Your task to perform on an android device: turn on the 24-hour format for clock Image 0: 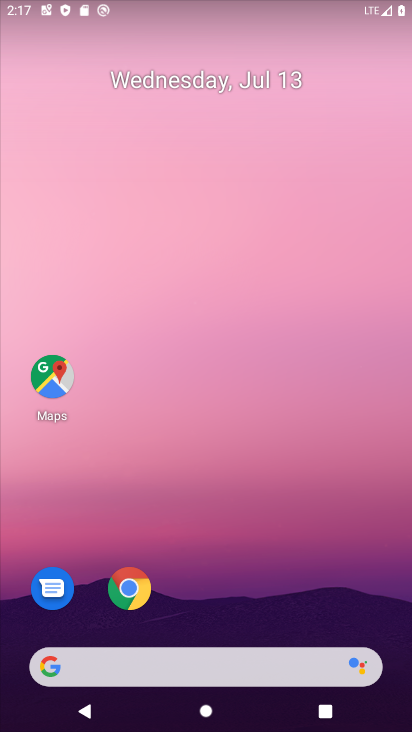
Step 0: drag from (409, 640) to (395, 189)
Your task to perform on an android device: turn on the 24-hour format for clock Image 1: 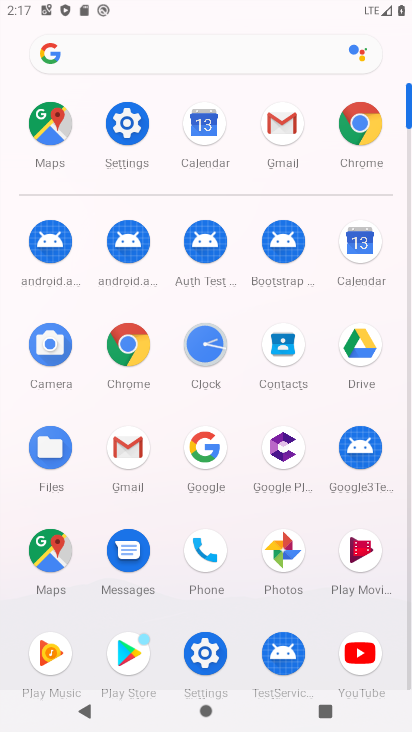
Step 1: click (207, 357)
Your task to perform on an android device: turn on the 24-hour format for clock Image 2: 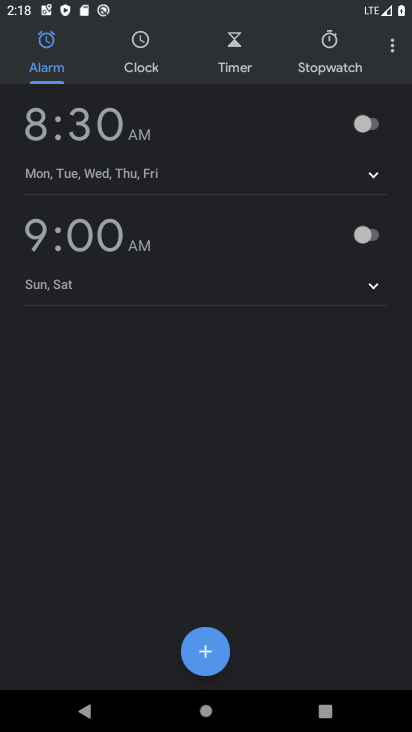
Step 2: click (394, 41)
Your task to perform on an android device: turn on the 24-hour format for clock Image 3: 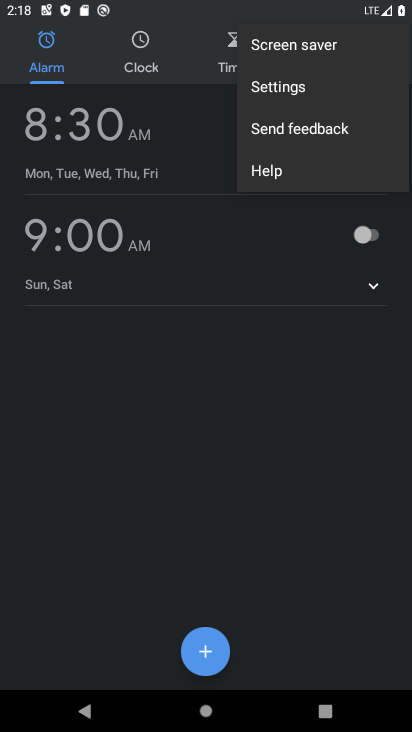
Step 3: click (268, 83)
Your task to perform on an android device: turn on the 24-hour format for clock Image 4: 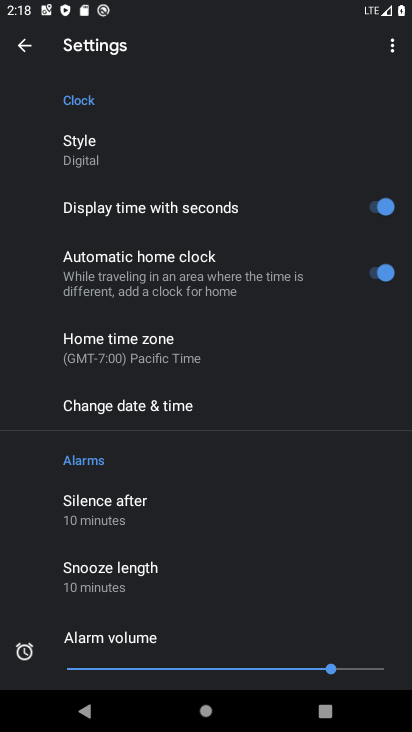
Step 4: click (114, 409)
Your task to perform on an android device: turn on the 24-hour format for clock Image 5: 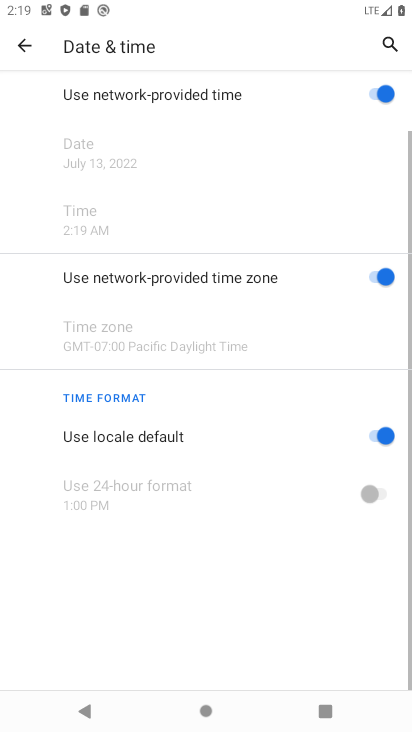
Step 5: click (369, 434)
Your task to perform on an android device: turn on the 24-hour format for clock Image 6: 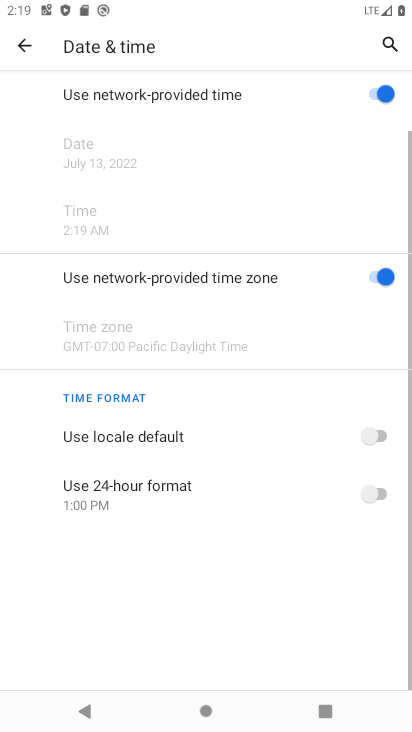
Step 6: click (379, 489)
Your task to perform on an android device: turn on the 24-hour format for clock Image 7: 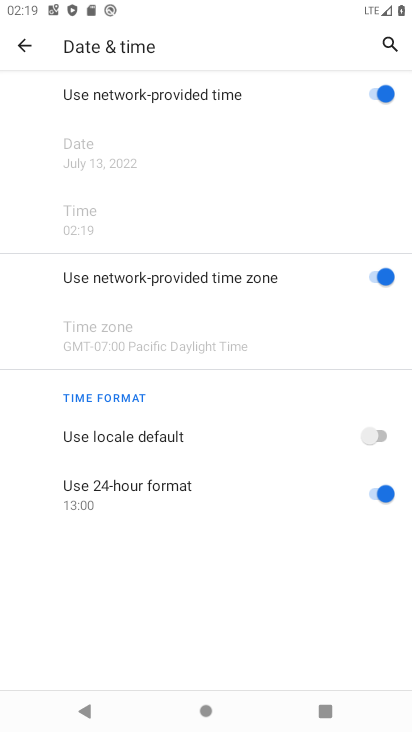
Step 7: task complete